Your task to perform on an android device: turn on bluetooth scan Image 0: 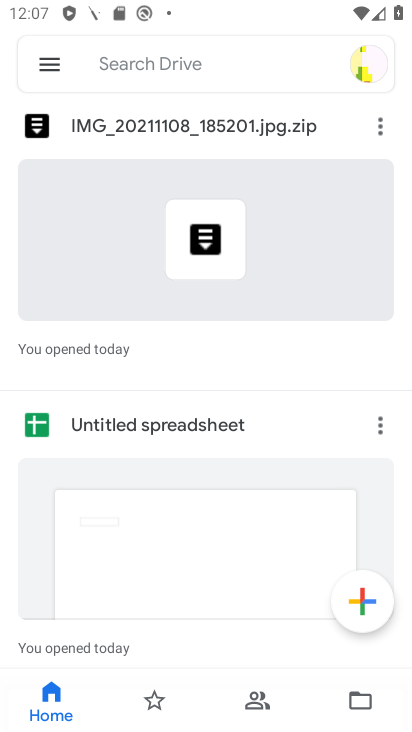
Step 0: press home button
Your task to perform on an android device: turn on bluetooth scan Image 1: 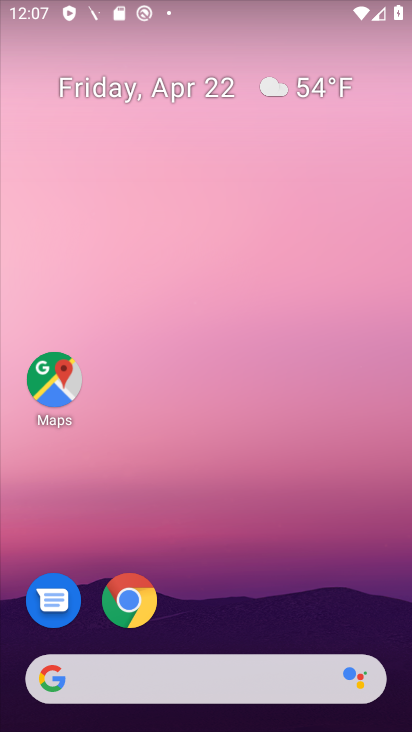
Step 1: drag from (373, 594) to (291, 220)
Your task to perform on an android device: turn on bluetooth scan Image 2: 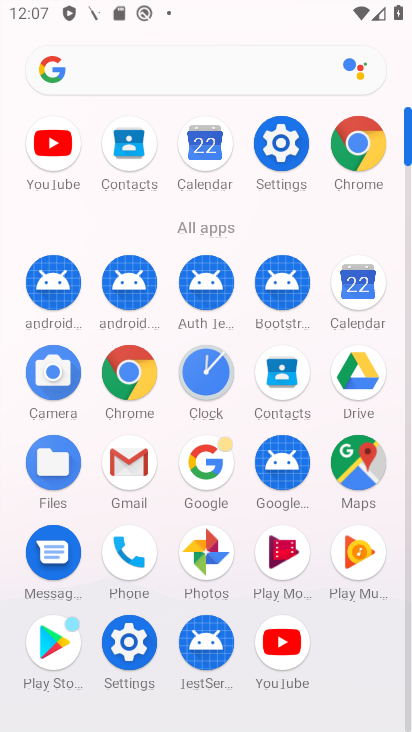
Step 2: click (124, 645)
Your task to perform on an android device: turn on bluetooth scan Image 3: 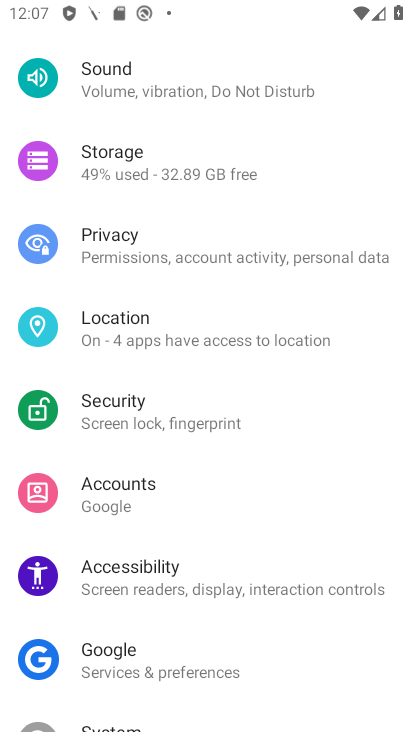
Step 3: click (97, 324)
Your task to perform on an android device: turn on bluetooth scan Image 4: 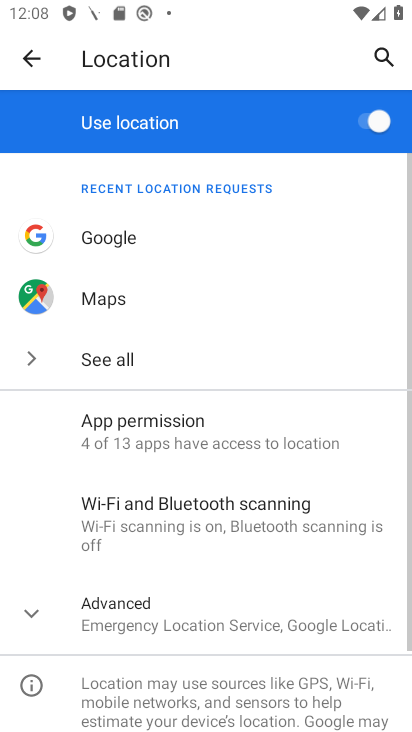
Step 4: click (120, 521)
Your task to perform on an android device: turn on bluetooth scan Image 5: 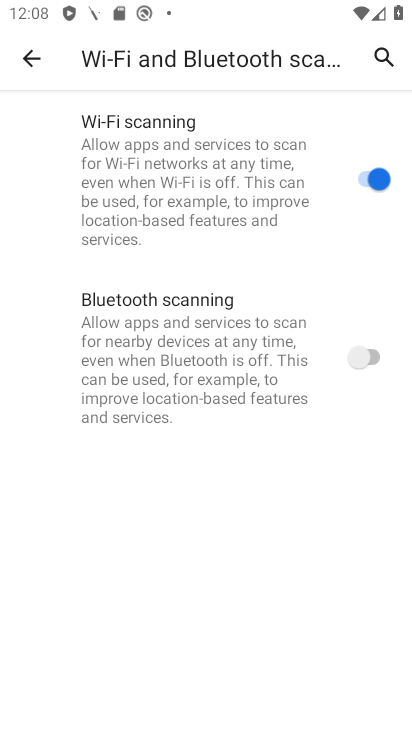
Step 5: click (370, 357)
Your task to perform on an android device: turn on bluetooth scan Image 6: 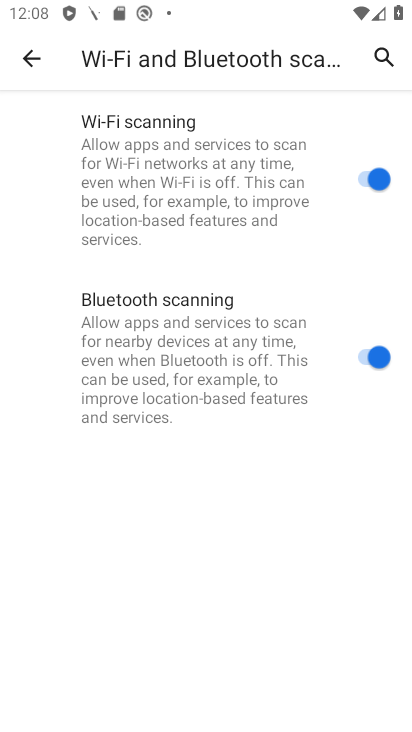
Step 6: task complete